Your task to perform on an android device: turn off airplane mode Image 0: 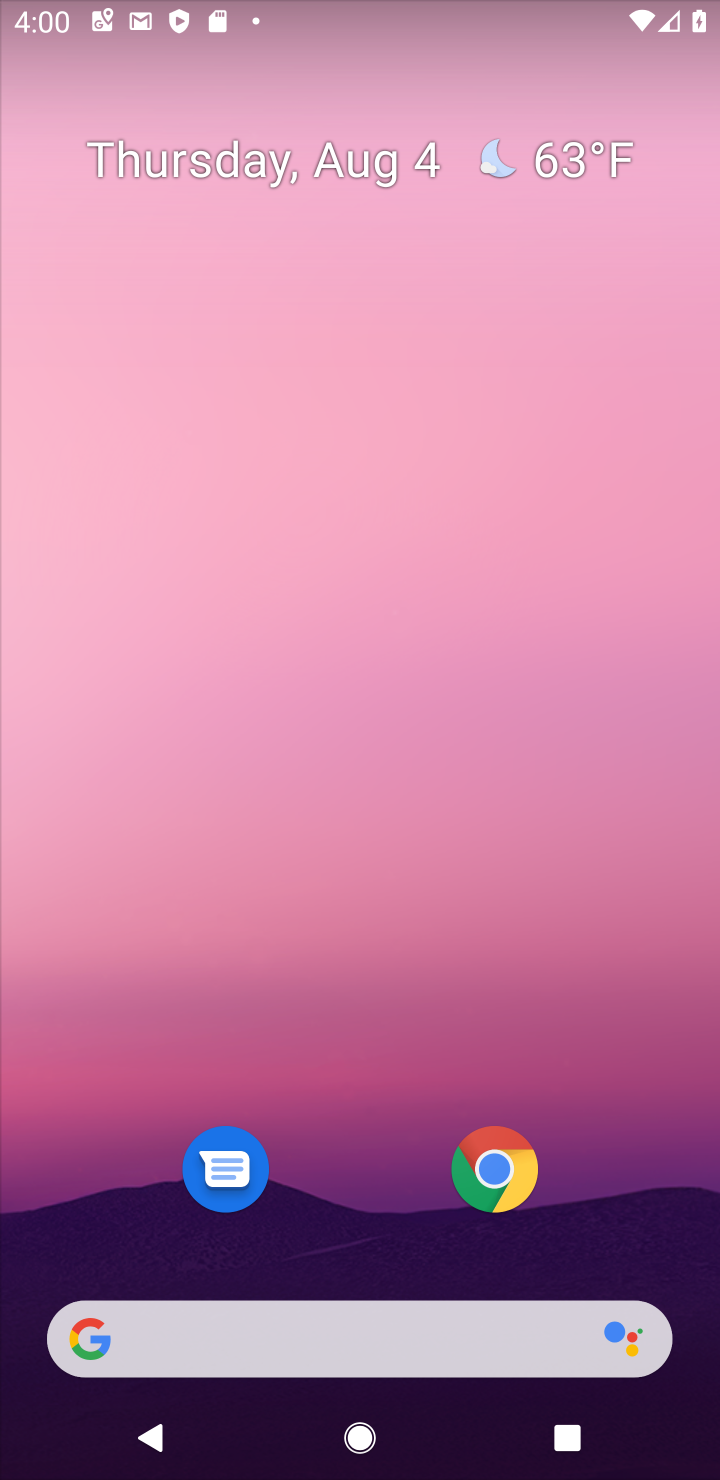
Step 0: drag from (319, 1198) to (405, 124)
Your task to perform on an android device: turn off airplane mode Image 1: 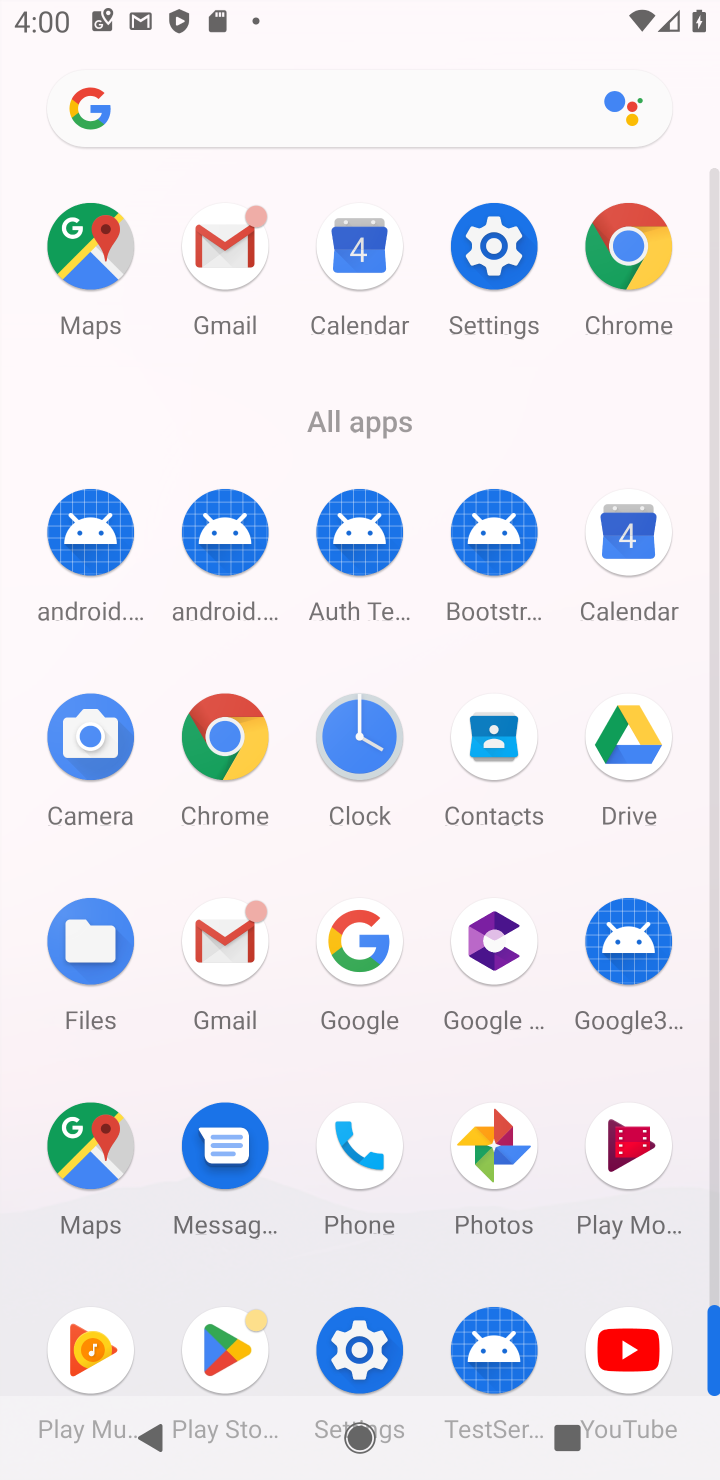
Step 1: click (357, 1337)
Your task to perform on an android device: turn off airplane mode Image 2: 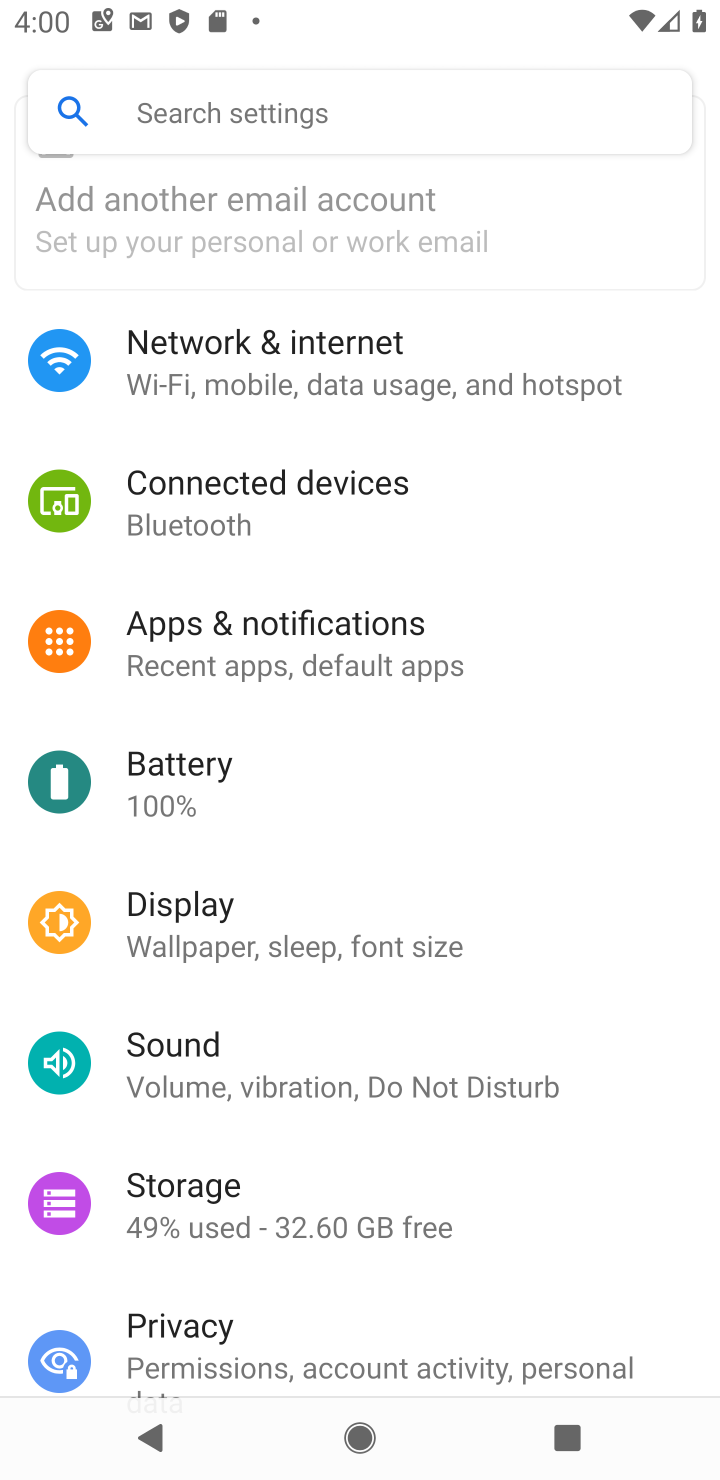
Step 2: drag from (396, 423) to (247, 1476)
Your task to perform on an android device: turn off airplane mode Image 3: 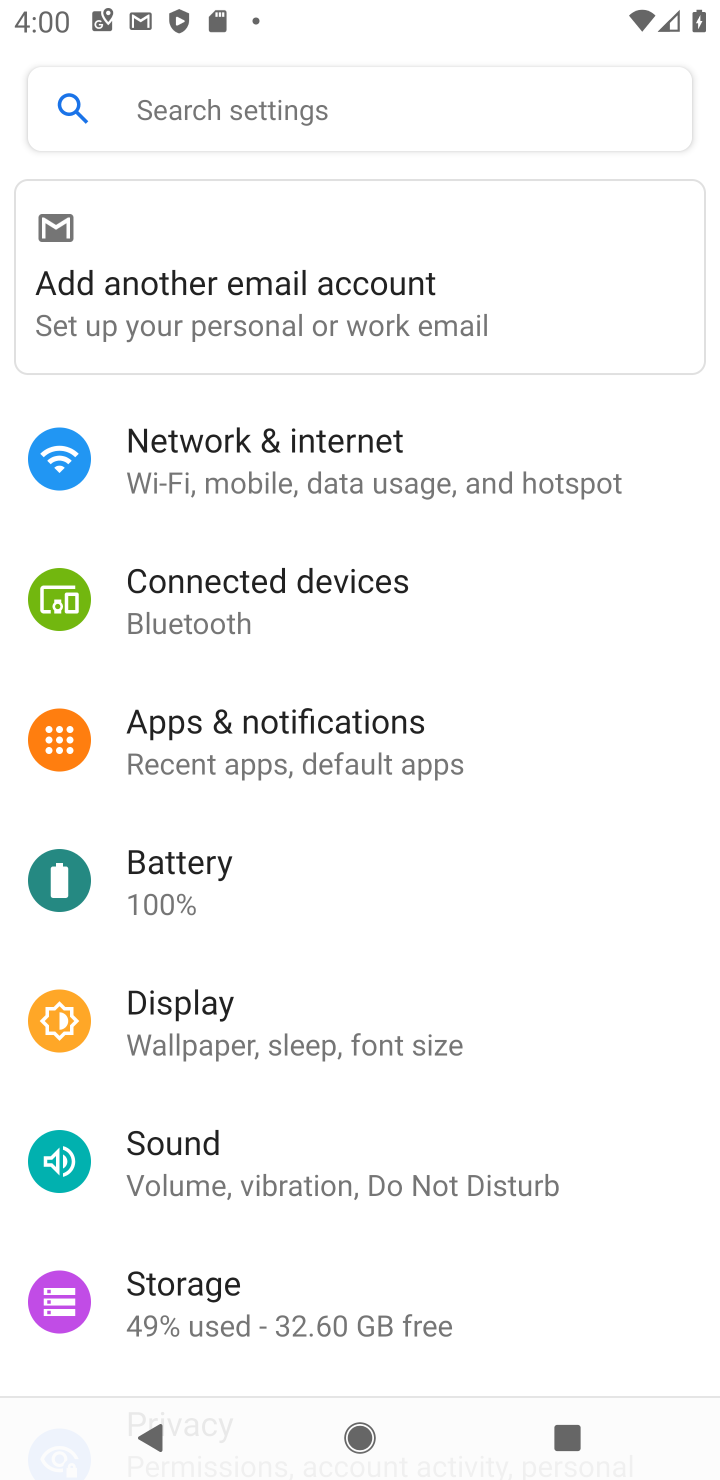
Step 3: click (286, 482)
Your task to perform on an android device: turn off airplane mode Image 4: 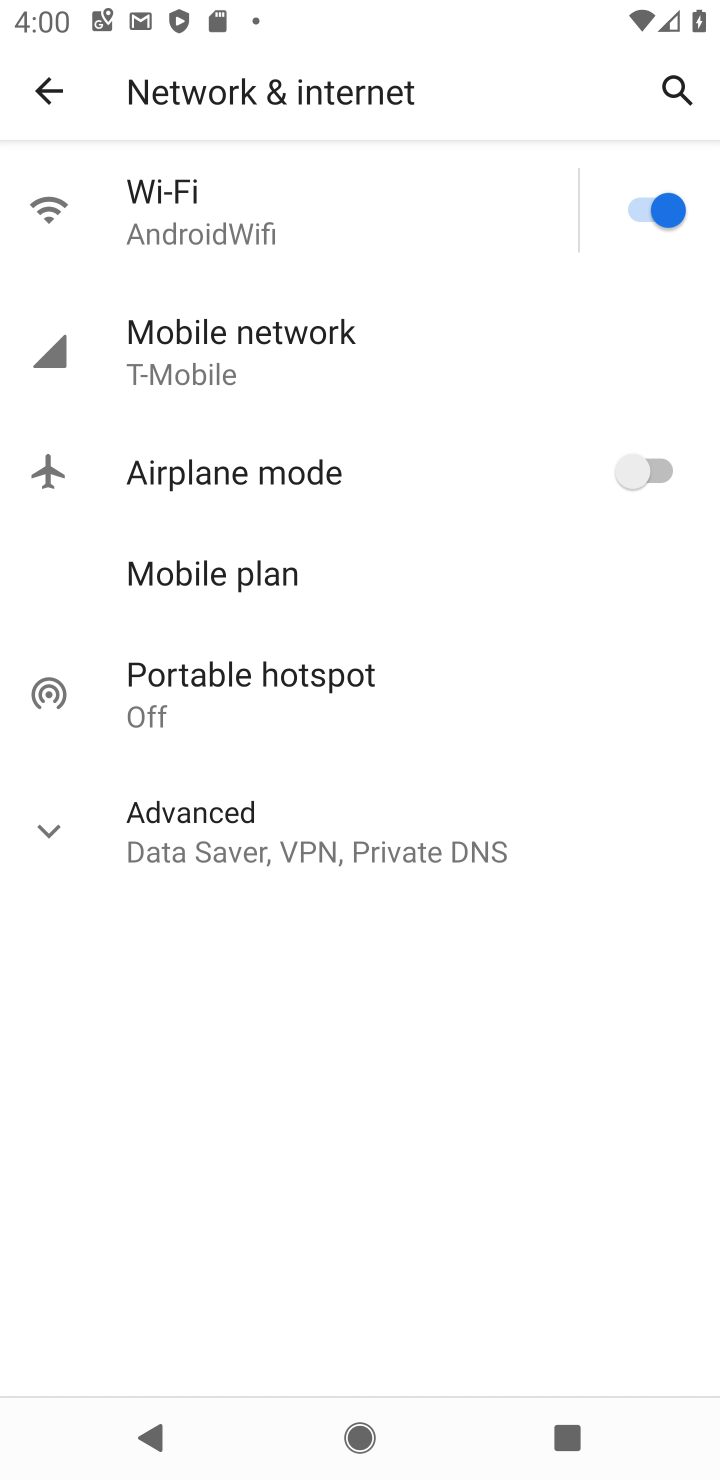
Step 4: task complete